Your task to perform on an android device: change text size in settings app Image 0: 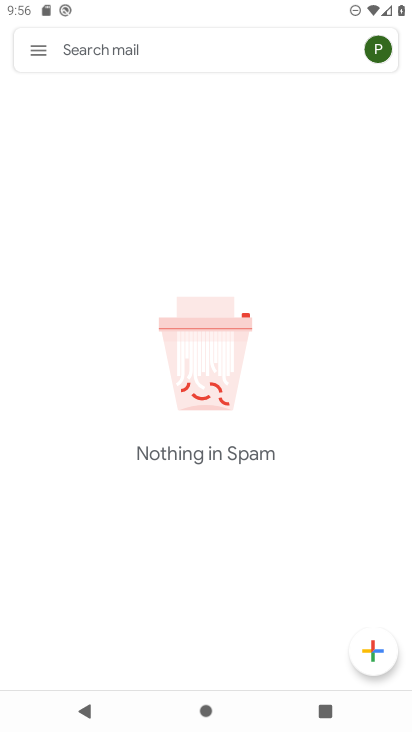
Step 0: press back button
Your task to perform on an android device: change text size in settings app Image 1: 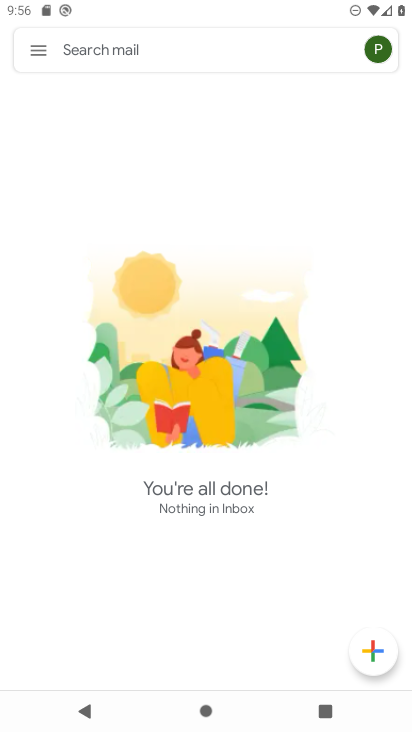
Step 1: press back button
Your task to perform on an android device: change text size in settings app Image 2: 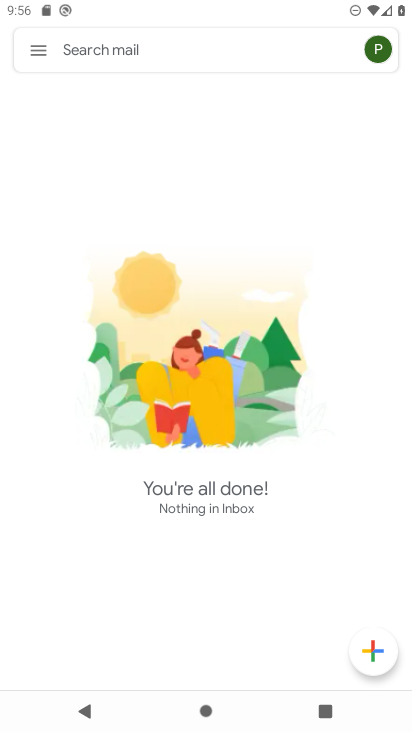
Step 2: press back button
Your task to perform on an android device: change text size in settings app Image 3: 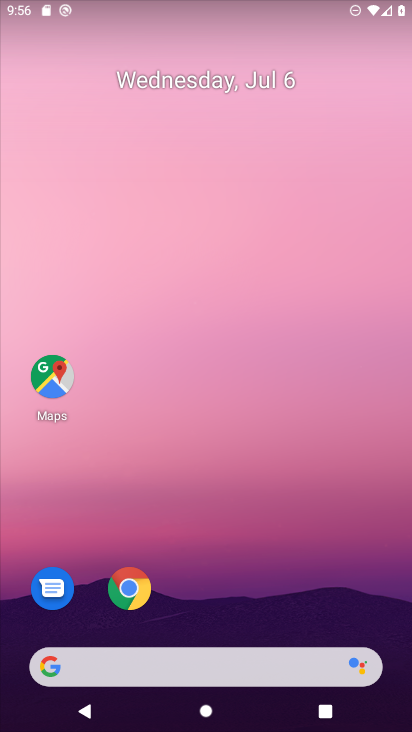
Step 3: drag from (275, 499) to (328, 16)
Your task to perform on an android device: change text size in settings app Image 4: 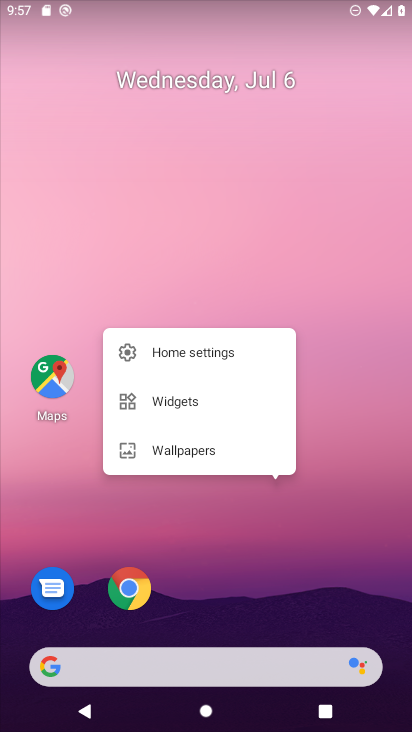
Step 4: click (274, 611)
Your task to perform on an android device: change text size in settings app Image 5: 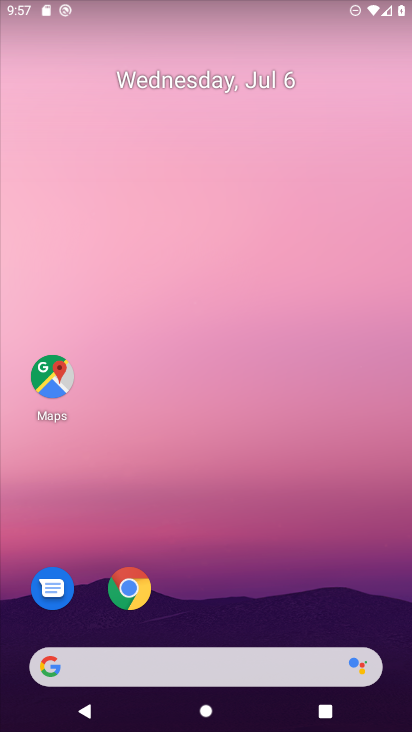
Step 5: drag from (195, 582) to (221, 6)
Your task to perform on an android device: change text size in settings app Image 6: 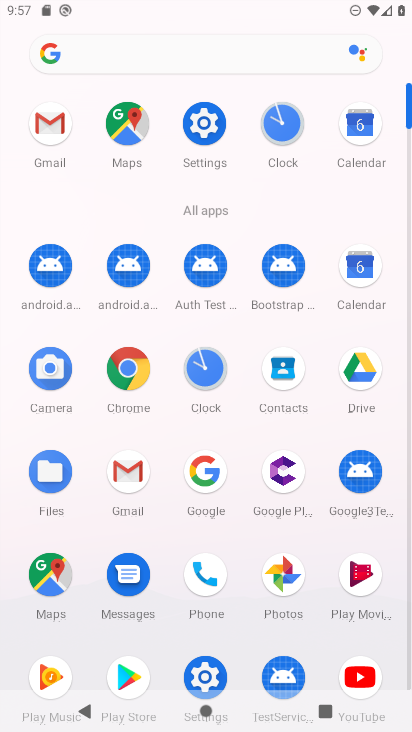
Step 6: click (203, 137)
Your task to perform on an android device: change text size in settings app Image 7: 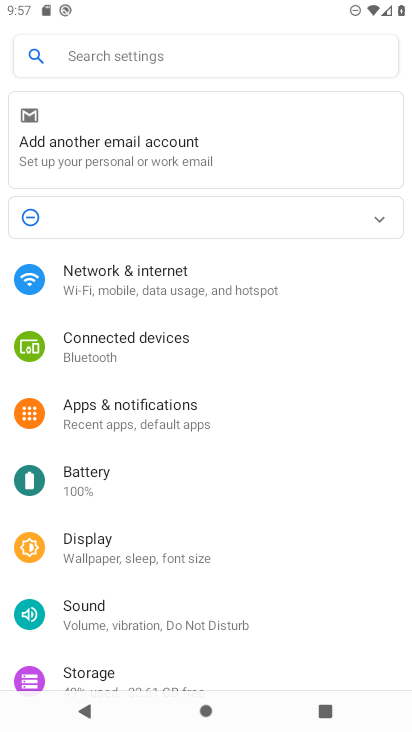
Step 7: click (96, 50)
Your task to perform on an android device: change text size in settings app Image 8: 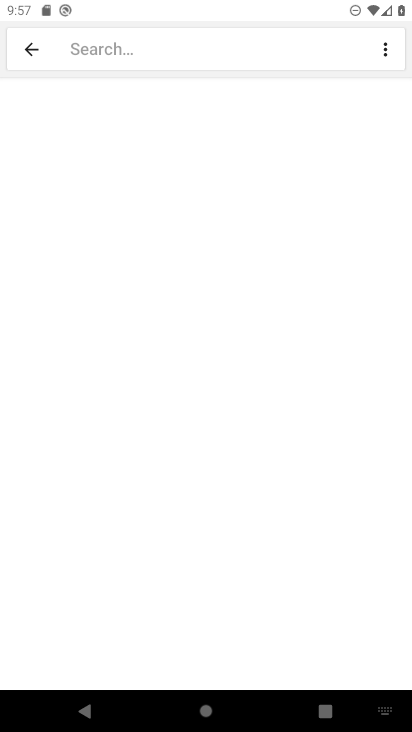
Step 8: type "text size"
Your task to perform on an android device: change text size in settings app Image 9: 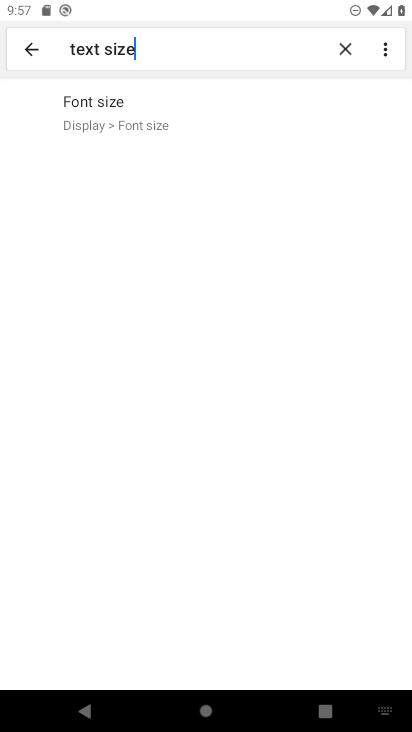
Step 9: click (44, 107)
Your task to perform on an android device: change text size in settings app Image 10: 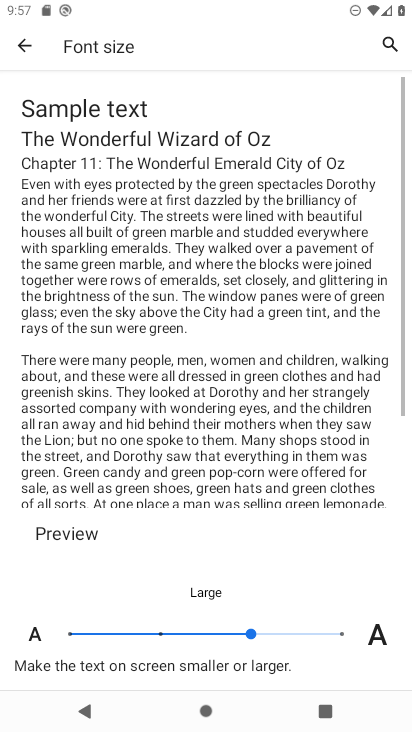
Step 10: click (187, 121)
Your task to perform on an android device: change text size in settings app Image 11: 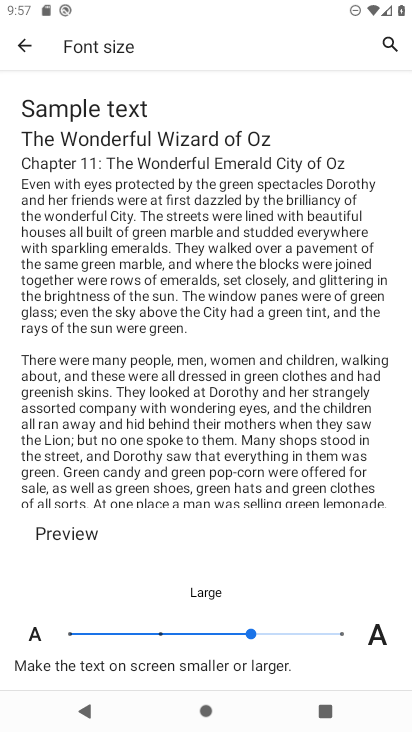
Step 11: task complete